Your task to perform on an android device: Open the calendar and show me this week's events Image 0: 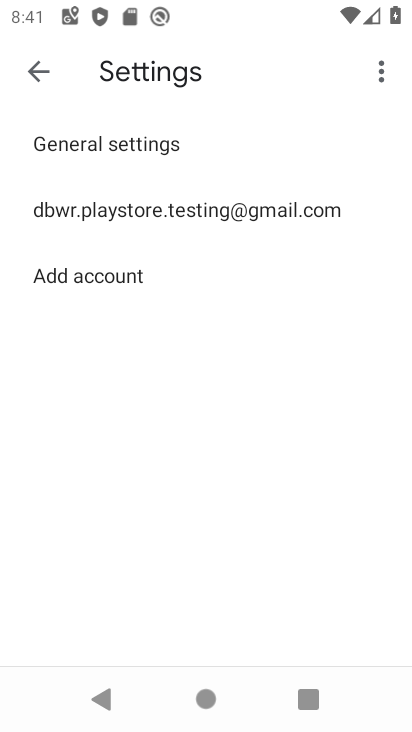
Step 0: press home button
Your task to perform on an android device: Open the calendar and show me this week's events Image 1: 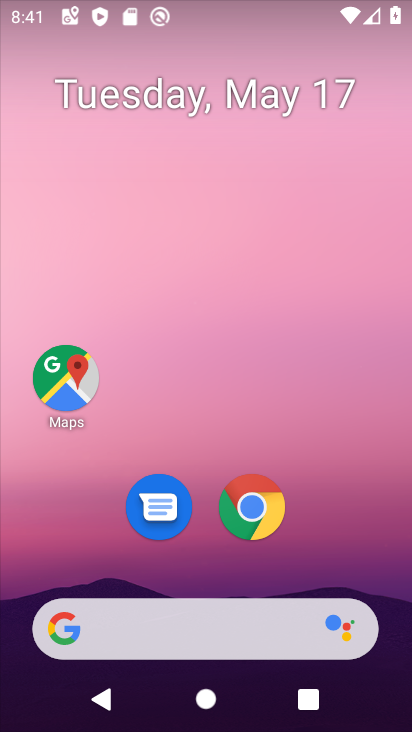
Step 1: drag from (239, 533) to (345, 14)
Your task to perform on an android device: Open the calendar and show me this week's events Image 2: 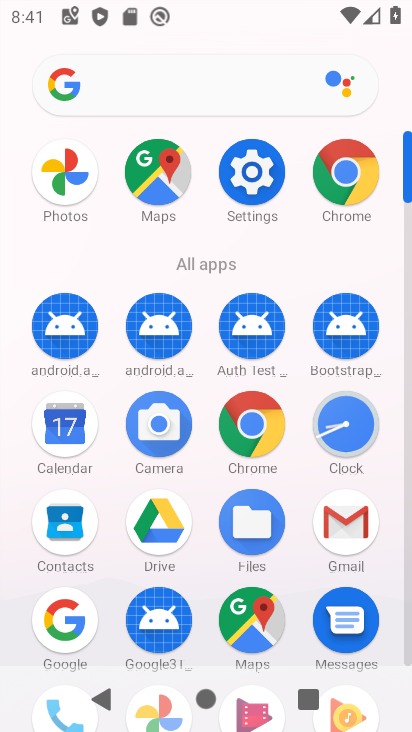
Step 2: click (73, 439)
Your task to perform on an android device: Open the calendar and show me this week's events Image 3: 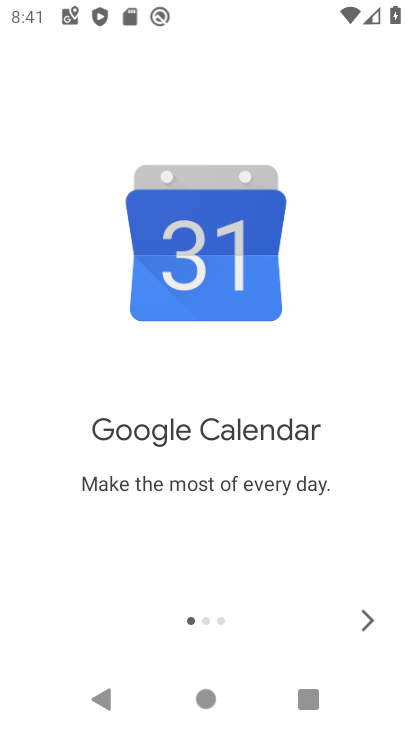
Step 3: click (358, 630)
Your task to perform on an android device: Open the calendar and show me this week's events Image 4: 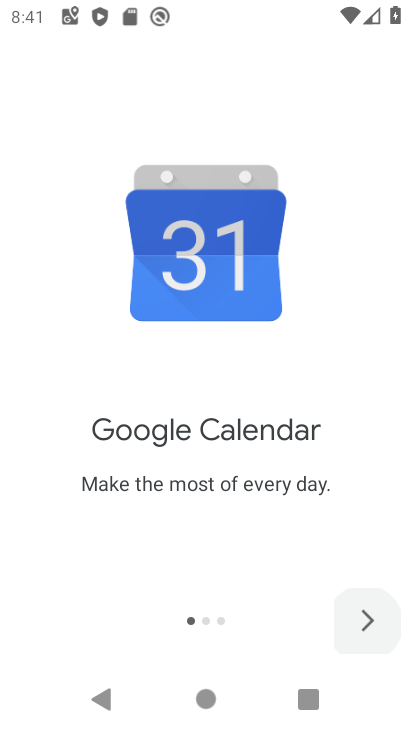
Step 4: click (358, 630)
Your task to perform on an android device: Open the calendar and show me this week's events Image 5: 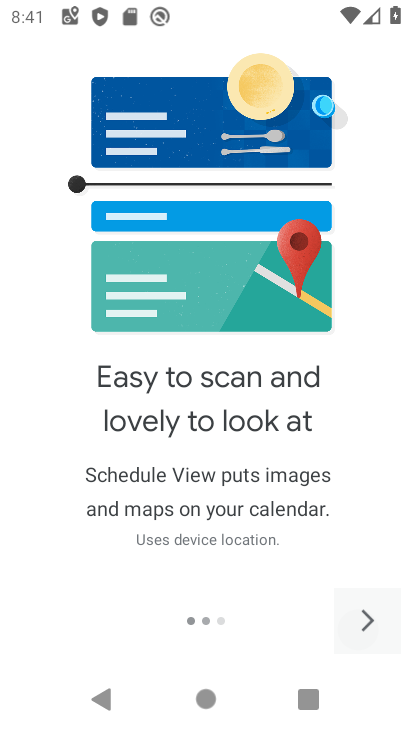
Step 5: click (358, 630)
Your task to perform on an android device: Open the calendar and show me this week's events Image 6: 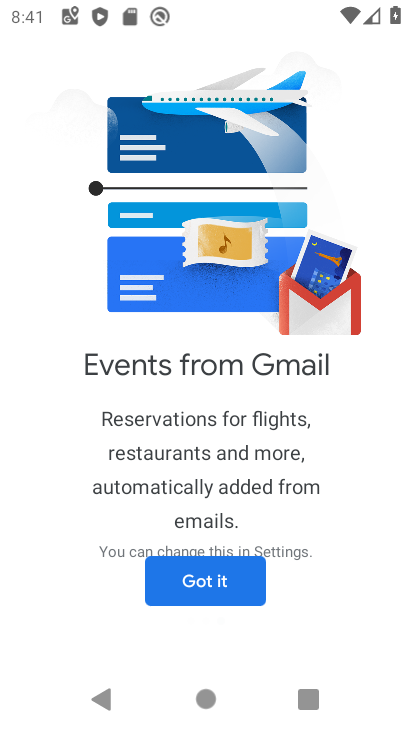
Step 6: click (365, 625)
Your task to perform on an android device: Open the calendar and show me this week's events Image 7: 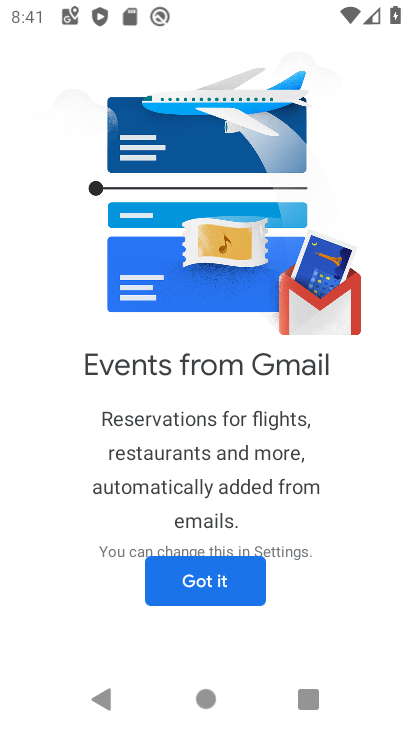
Step 7: click (365, 625)
Your task to perform on an android device: Open the calendar and show me this week's events Image 8: 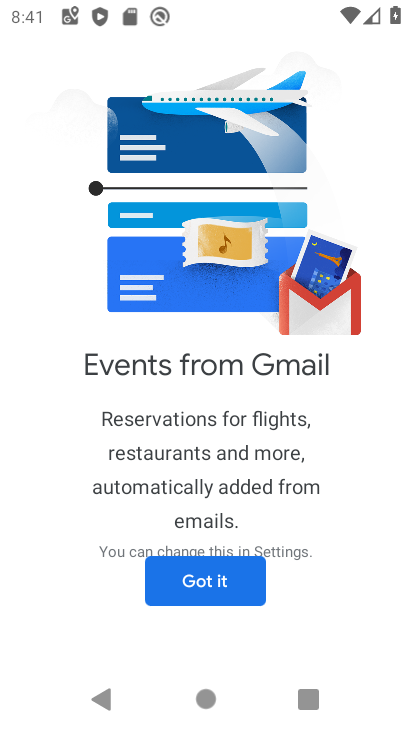
Step 8: click (224, 568)
Your task to perform on an android device: Open the calendar and show me this week's events Image 9: 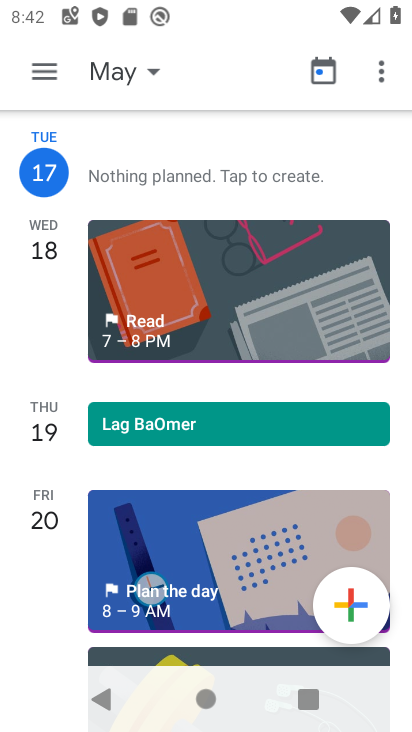
Step 9: click (148, 65)
Your task to perform on an android device: Open the calendar and show me this week's events Image 10: 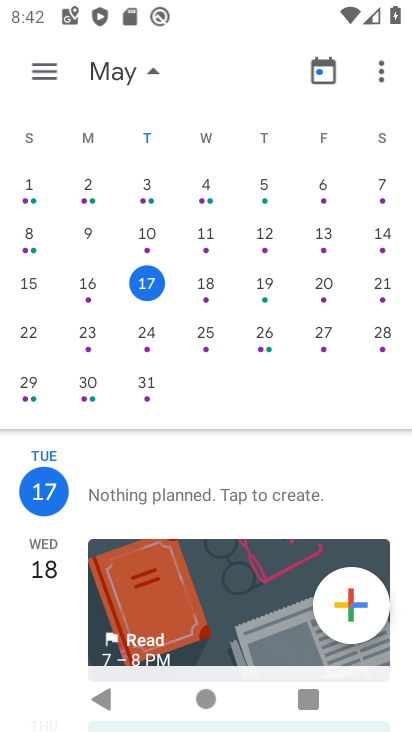
Step 10: click (261, 331)
Your task to perform on an android device: Open the calendar and show me this week's events Image 11: 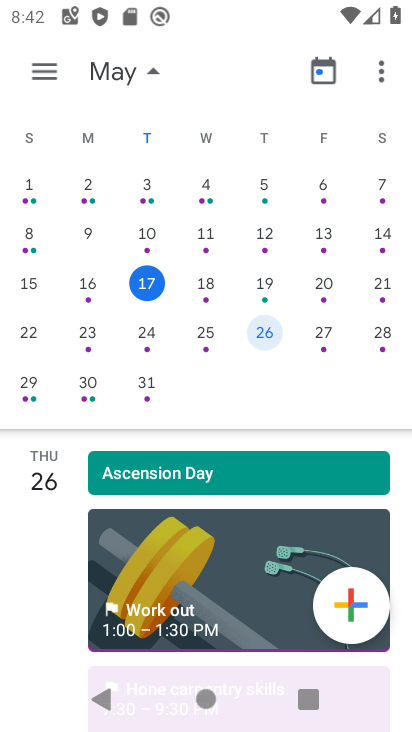
Step 11: click (33, 76)
Your task to perform on an android device: Open the calendar and show me this week's events Image 12: 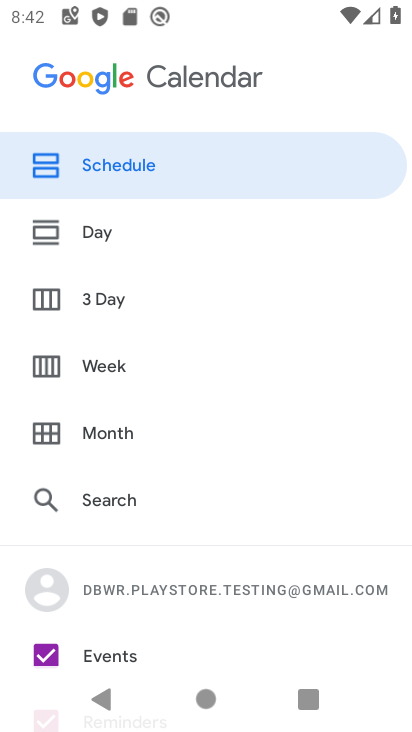
Step 12: click (121, 369)
Your task to perform on an android device: Open the calendar and show me this week's events Image 13: 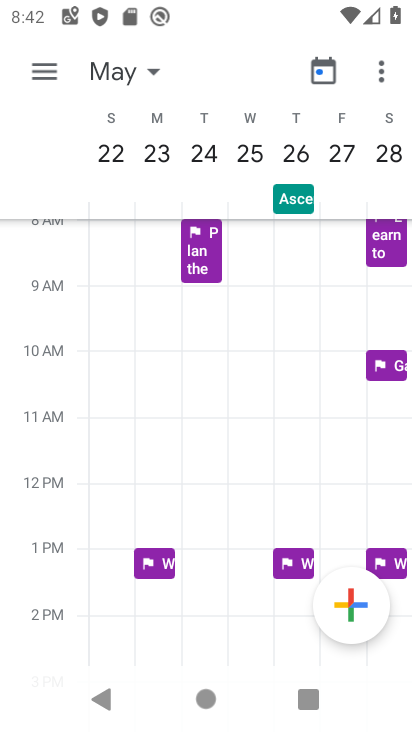
Step 13: task complete